Your task to perform on an android device: Open the map Image 0: 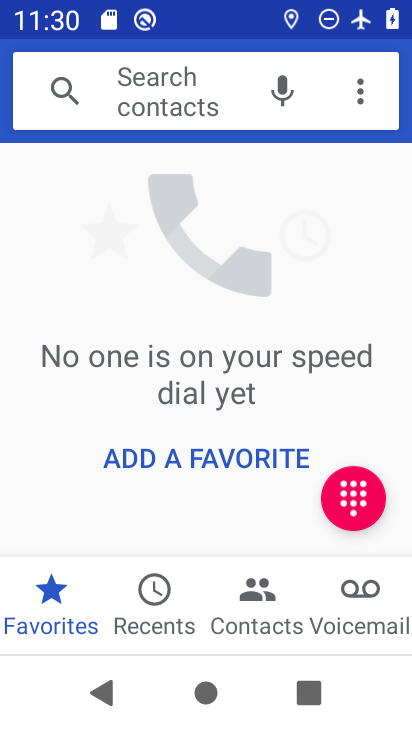
Step 0: press home button
Your task to perform on an android device: Open the map Image 1: 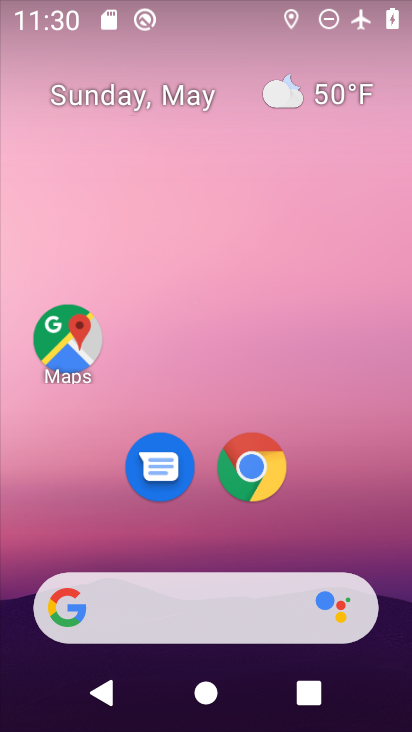
Step 1: click (75, 364)
Your task to perform on an android device: Open the map Image 2: 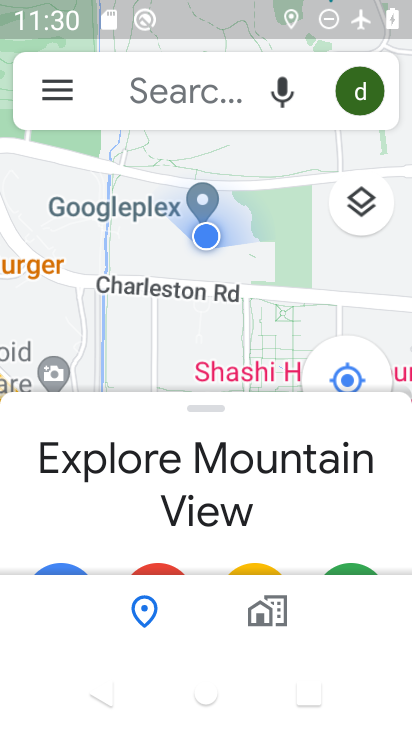
Step 2: task complete